Your task to perform on an android device: Is it going to rain today? Image 0: 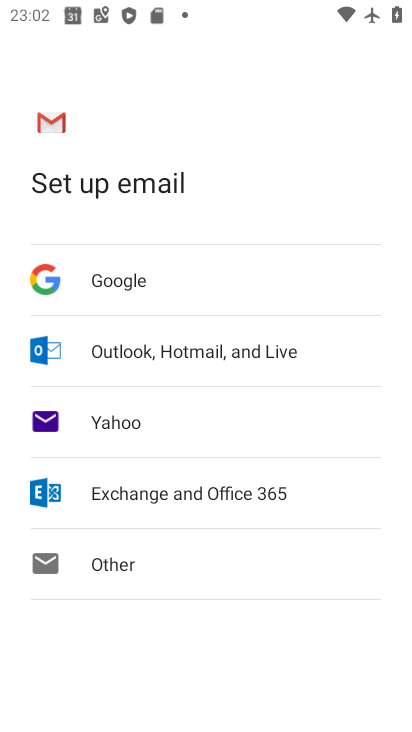
Step 0: press home button
Your task to perform on an android device: Is it going to rain today? Image 1: 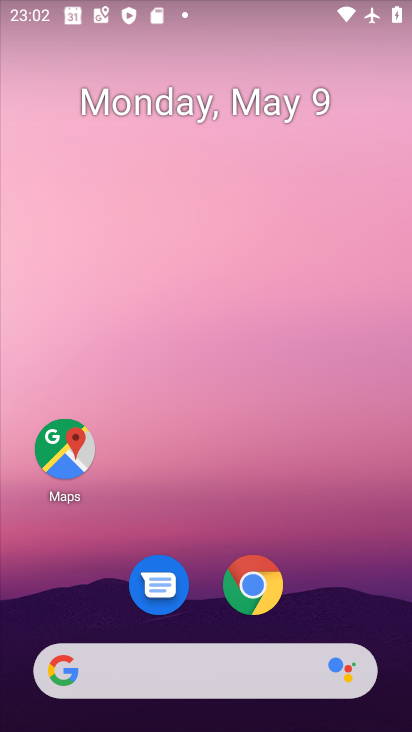
Step 1: click (211, 681)
Your task to perform on an android device: Is it going to rain today? Image 2: 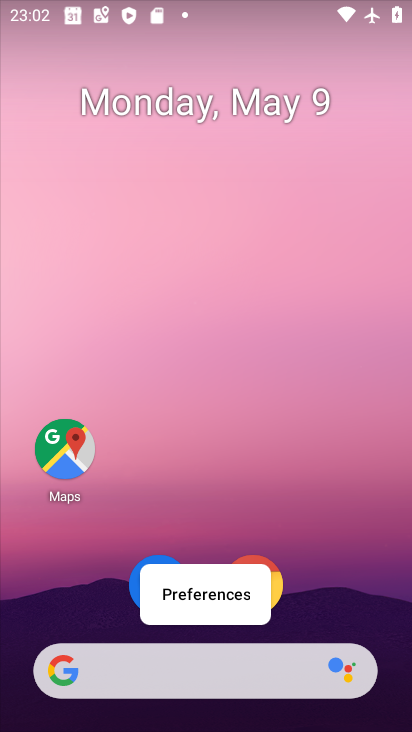
Step 2: click (211, 673)
Your task to perform on an android device: Is it going to rain today? Image 3: 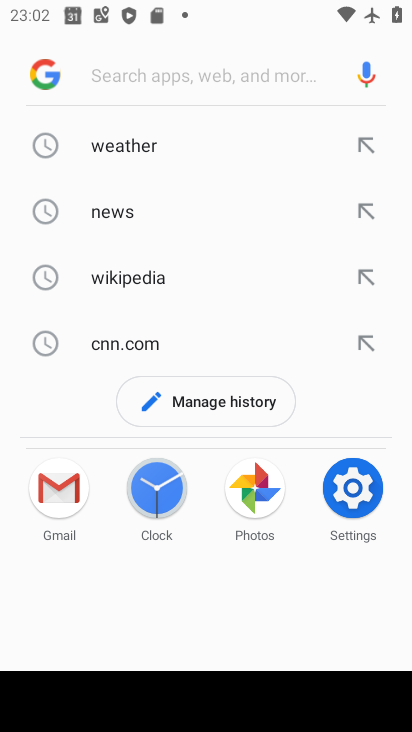
Step 3: click (52, 141)
Your task to perform on an android device: Is it going to rain today? Image 4: 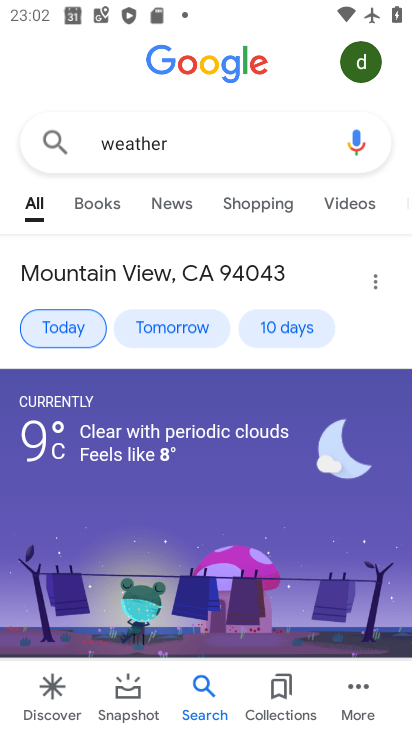
Step 4: task complete